Your task to perform on an android device: Show me the alarms in the clock app Image 0: 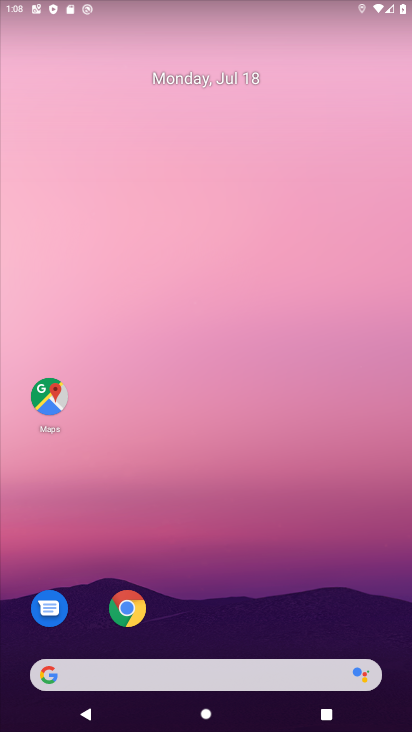
Step 0: drag from (321, 611) to (231, 86)
Your task to perform on an android device: Show me the alarms in the clock app Image 1: 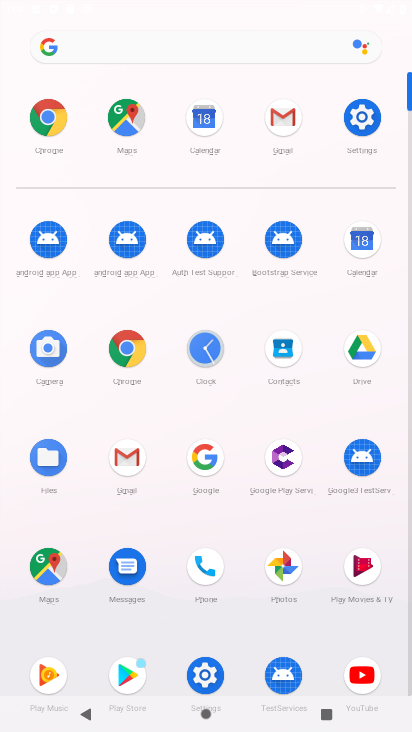
Step 1: click (210, 334)
Your task to perform on an android device: Show me the alarms in the clock app Image 2: 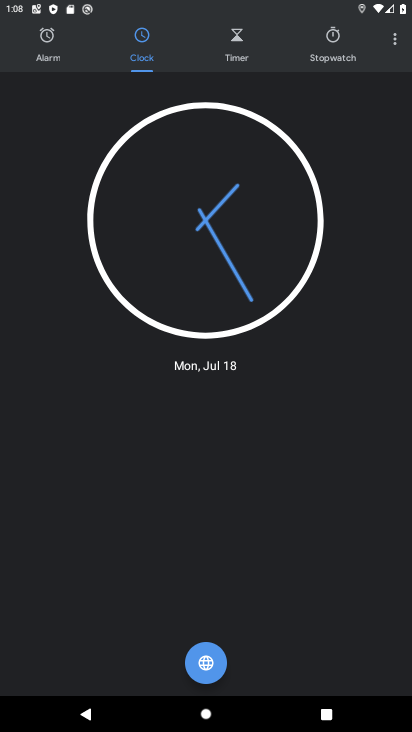
Step 2: click (62, 59)
Your task to perform on an android device: Show me the alarms in the clock app Image 3: 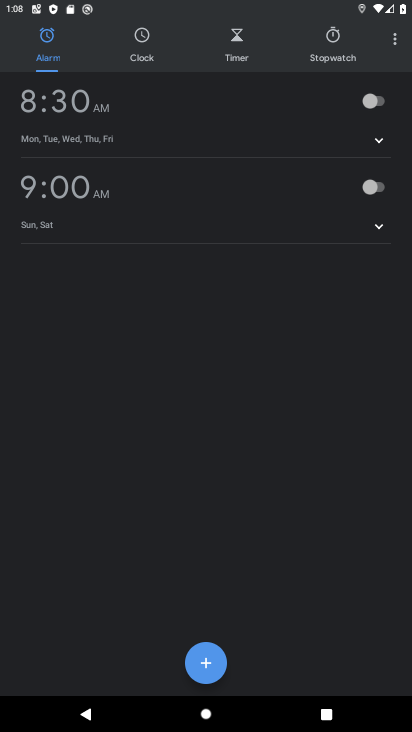
Step 3: task complete